Your task to perform on an android device: check battery use Image 0: 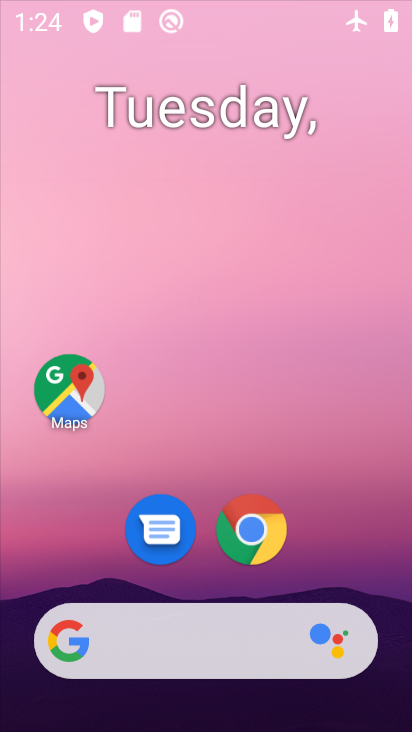
Step 0: click (246, 111)
Your task to perform on an android device: check battery use Image 1: 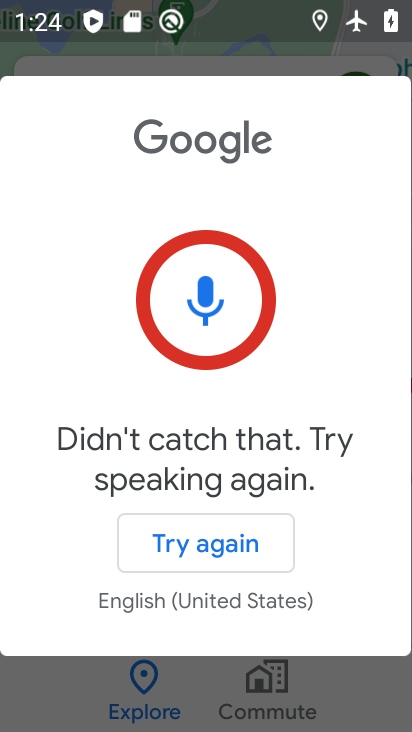
Step 1: press back button
Your task to perform on an android device: check battery use Image 2: 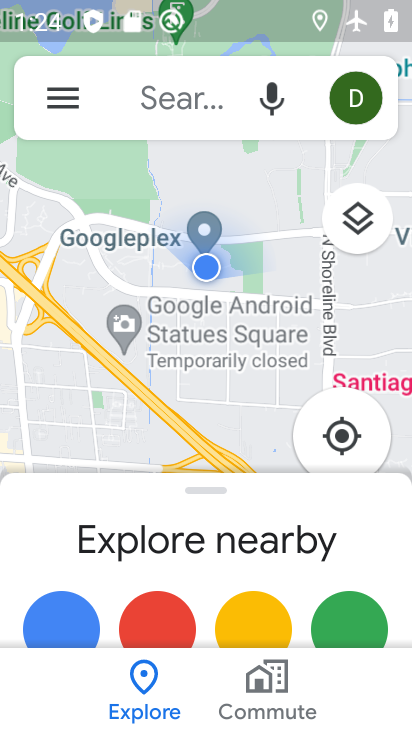
Step 2: press home button
Your task to perform on an android device: check battery use Image 3: 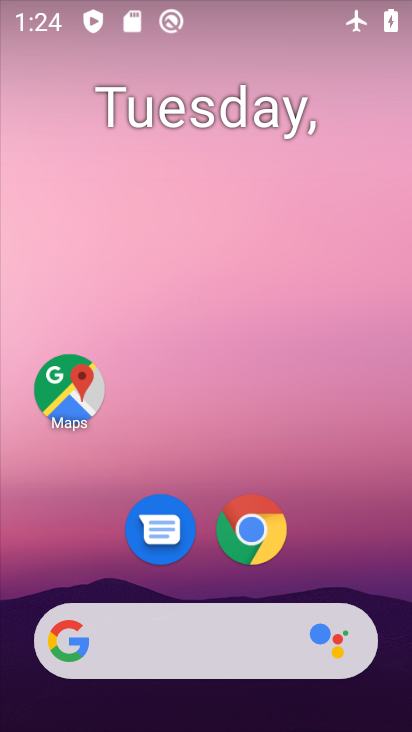
Step 3: drag from (349, 501) to (253, 126)
Your task to perform on an android device: check battery use Image 4: 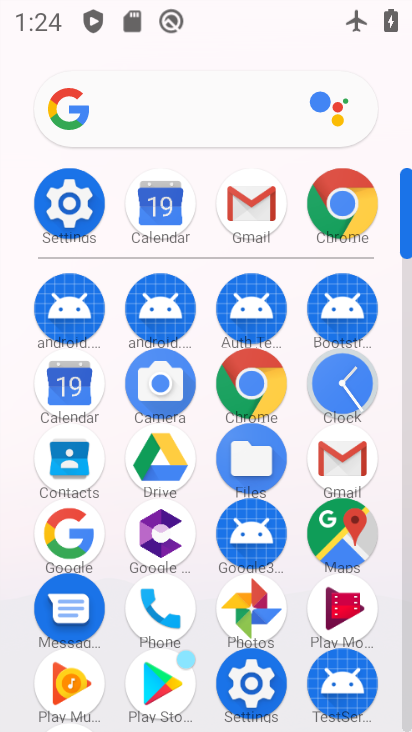
Step 4: click (97, 200)
Your task to perform on an android device: check battery use Image 5: 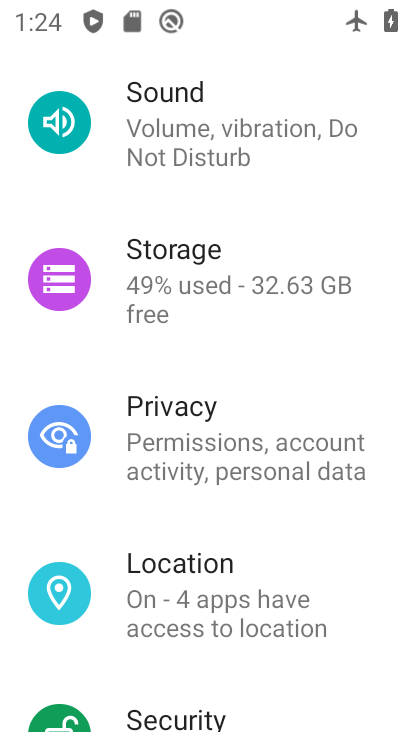
Step 5: drag from (304, 218) to (310, 495)
Your task to perform on an android device: check battery use Image 6: 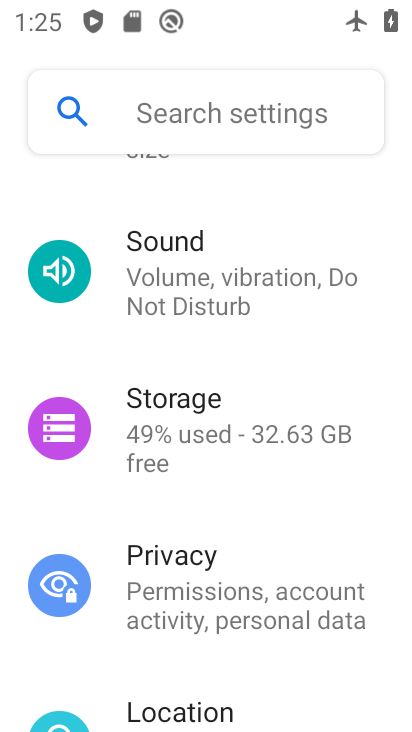
Step 6: drag from (304, 202) to (279, 429)
Your task to perform on an android device: check battery use Image 7: 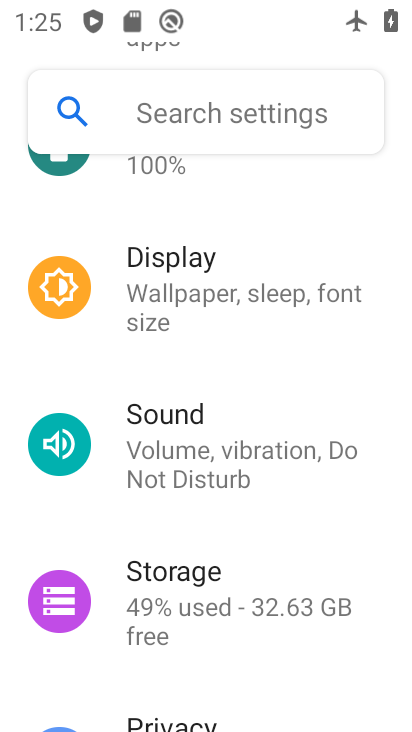
Step 7: click (218, 181)
Your task to perform on an android device: check battery use Image 8: 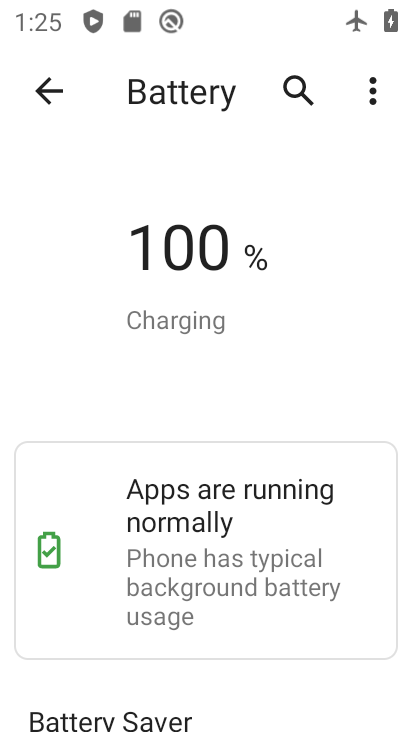
Step 8: click (363, 111)
Your task to perform on an android device: check battery use Image 9: 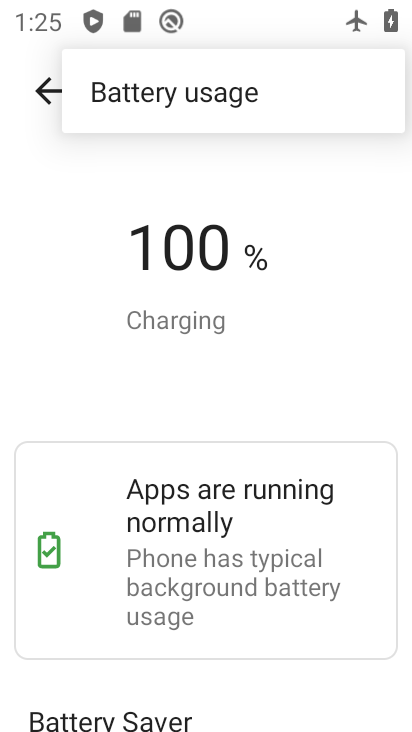
Step 9: click (292, 106)
Your task to perform on an android device: check battery use Image 10: 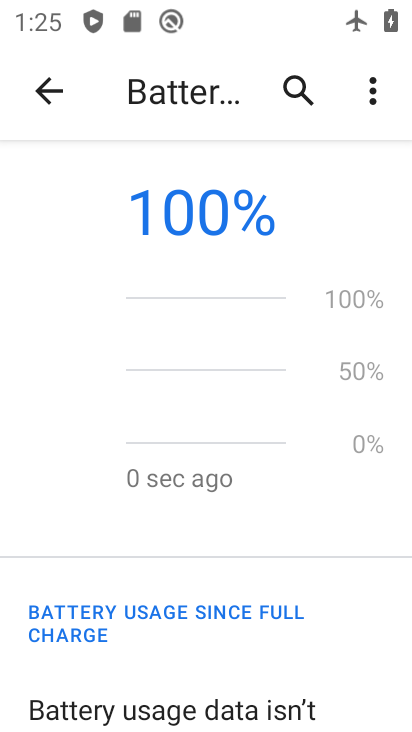
Step 10: task complete